Your task to perform on an android device: Open calendar and show me the second week of next month Image 0: 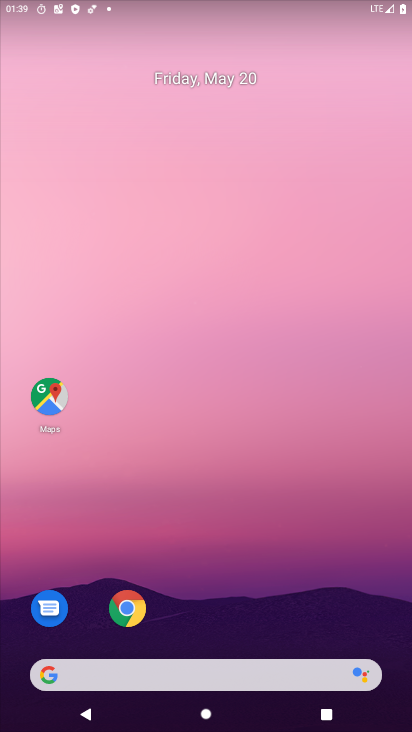
Step 0: drag from (270, 552) to (272, 196)
Your task to perform on an android device: Open calendar and show me the second week of next month Image 1: 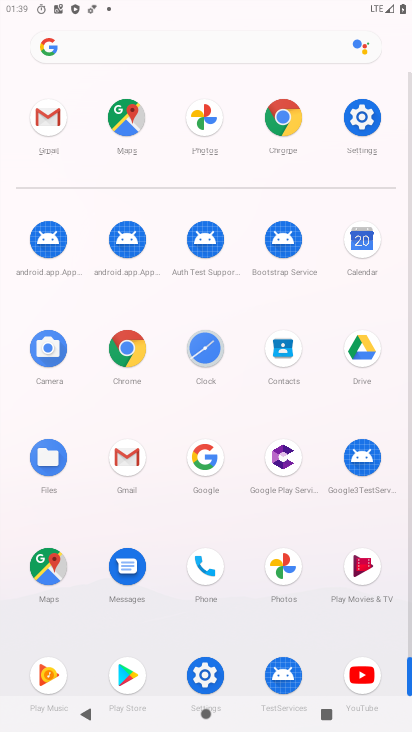
Step 1: click (374, 246)
Your task to perform on an android device: Open calendar and show me the second week of next month Image 2: 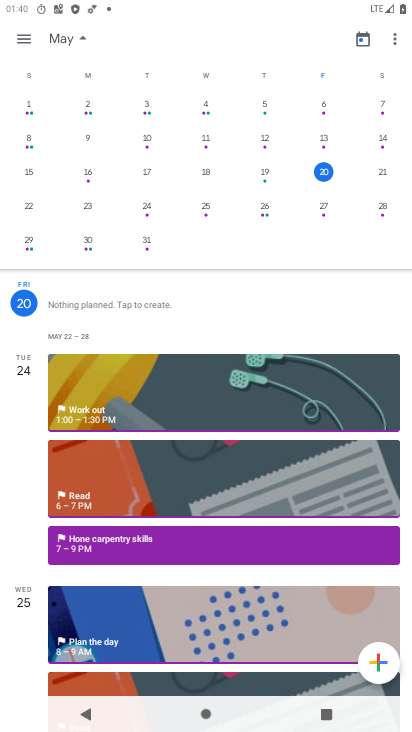
Step 2: drag from (289, 140) to (2, 164)
Your task to perform on an android device: Open calendar and show me the second week of next month Image 3: 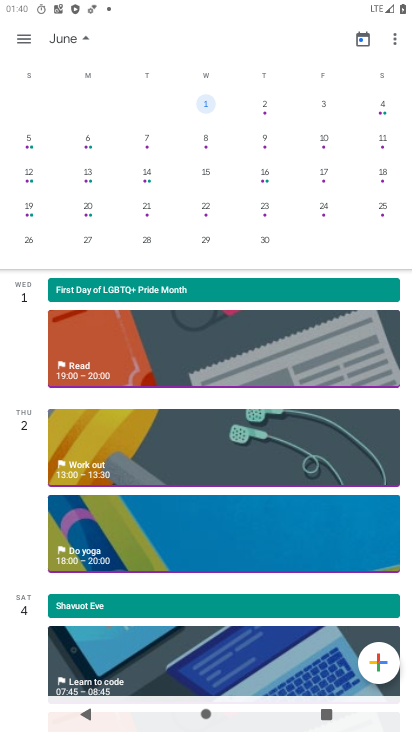
Step 3: click (30, 138)
Your task to perform on an android device: Open calendar and show me the second week of next month Image 4: 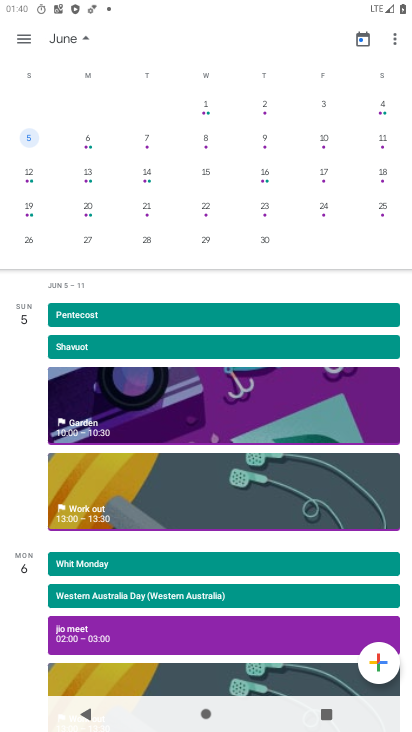
Step 4: task complete